Your task to perform on an android device: find snoozed emails in the gmail app Image 0: 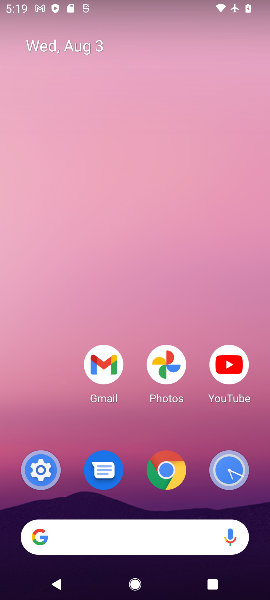
Step 0: drag from (77, 427) to (173, 148)
Your task to perform on an android device: find snoozed emails in the gmail app Image 1: 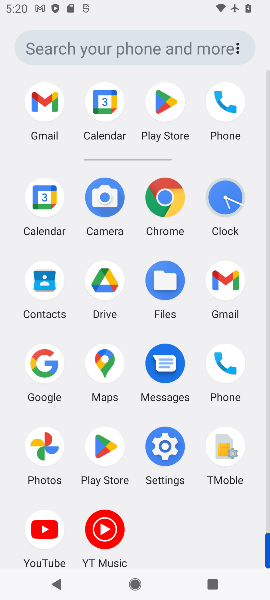
Step 1: click (225, 278)
Your task to perform on an android device: find snoozed emails in the gmail app Image 2: 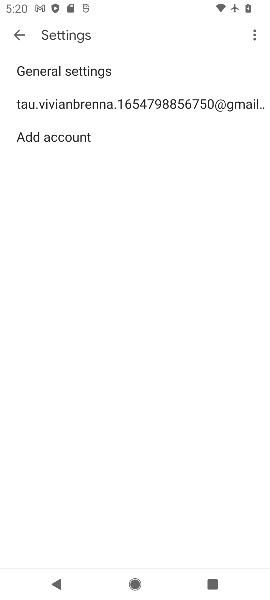
Step 2: click (152, 105)
Your task to perform on an android device: find snoozed emails in the gmail app Image 3: 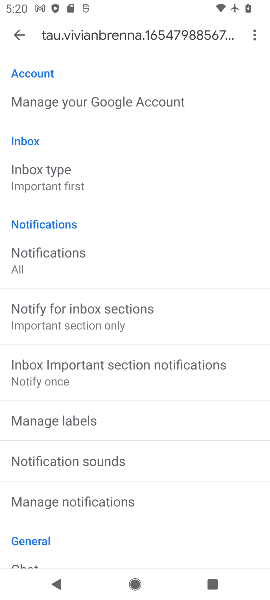
Step 3: click (25, 34)
Your task to perform on an android device: find snoozed emails in the gmail app Image 4: 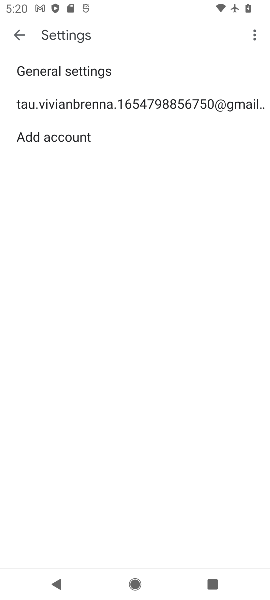
Step 4: click (25, 34)
Your task to perform on an android device: find snoozed emails in the gmail app Image 5: 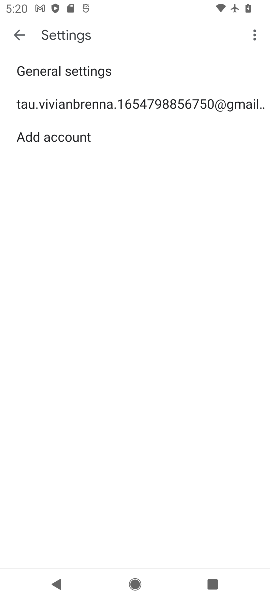
Step 5: click (25, 34)
Your task to perform on an android device: find snoozed emails in the gmail app Image 6: 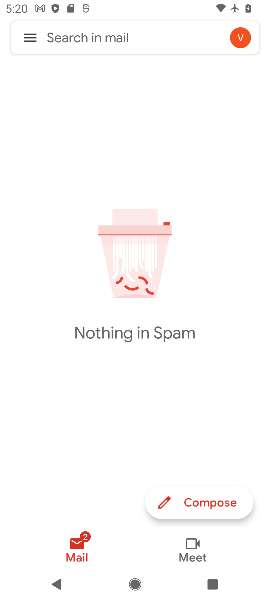
Step 6: click (25, 34)
Your task to perform on an android device: find snoozed emails in the gmail app Image 7: 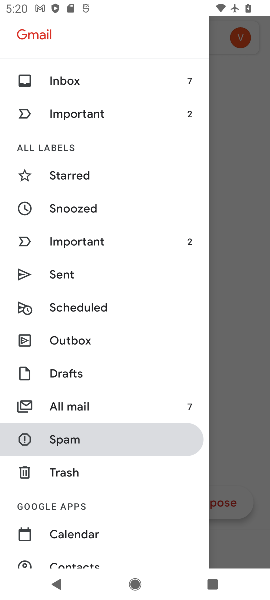
Step 7: drag from (119, 333) to (201, 111)
Your task to perform on an android device: find snoozed emails in the gmail app Image 8: 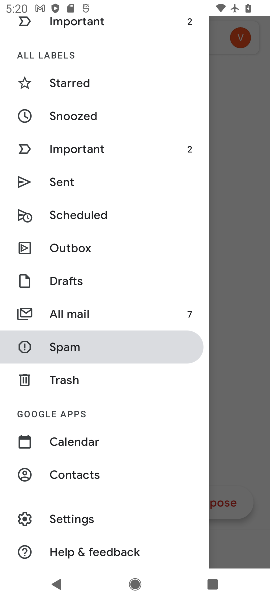
Step 8: click (103, 113)
Your task to perform on an android device: find snoozed emails in the gmail app Image 9: 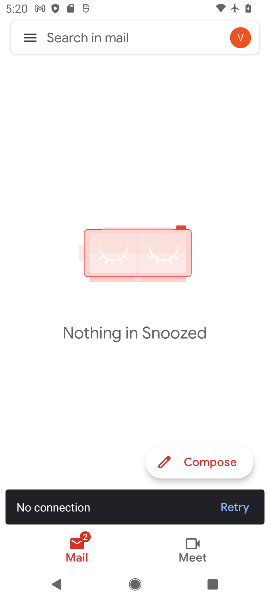
Step 9: task complete